Your task to perform on an android device: Open Chrome and go to settings Image 0: 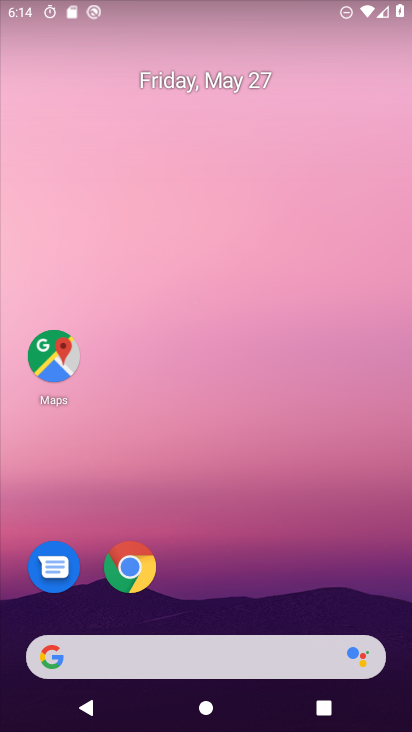
Step 0: click (132, 565)
Your task to perform on an android device: Open Chrome and go to settings Image 1: 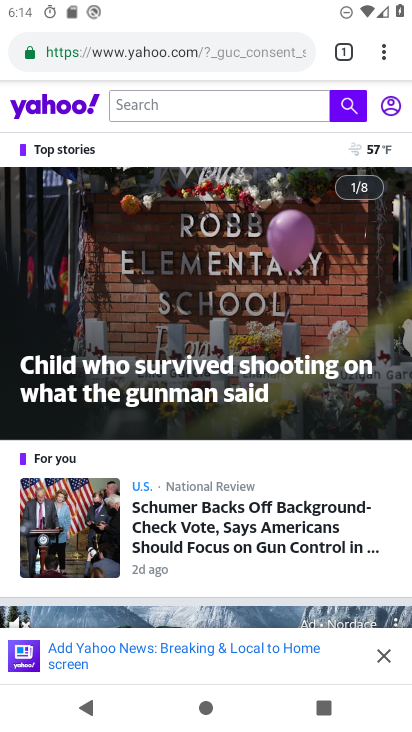
Step 1: click (380, 56)
Your task to perform on an android device: Open Chrome and go to settings Image 2: 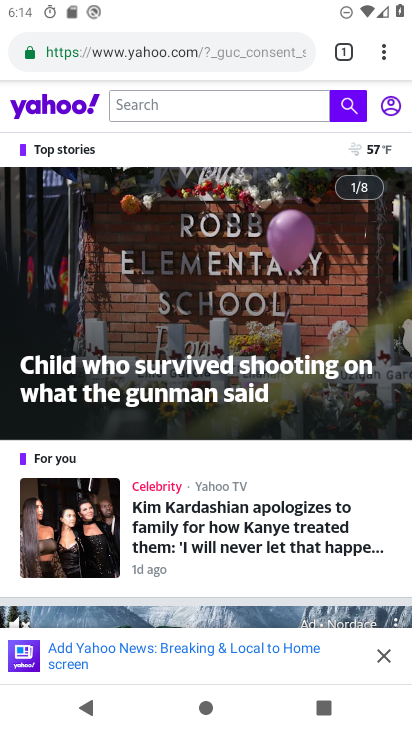
Step 2: click (385, 50)
Your task to perform on an android device: Open Chrome and go to settings Image 3: 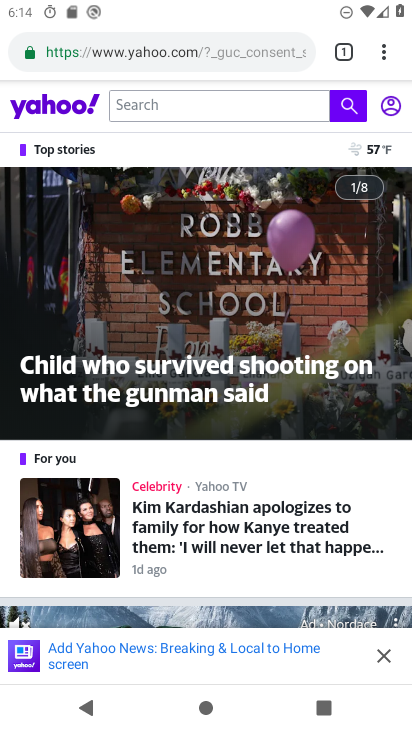
Step 3: click (380, 52)
Your task to perform on an android device: Open Chrome and go to settings Image 4: 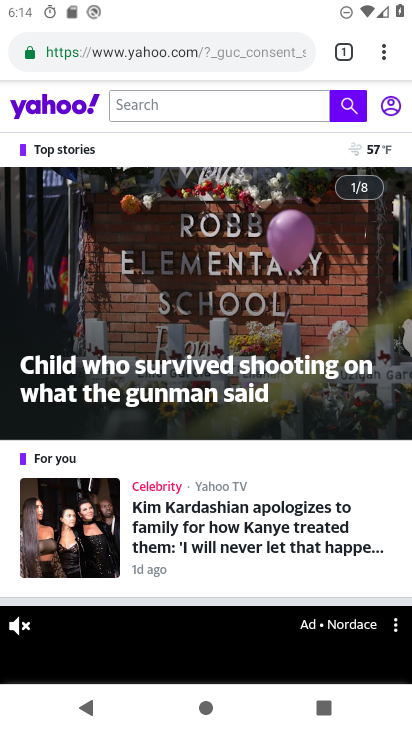
Step 4: click (384, 53)
Your task to perform on an android device: Open Chrome and go to settings Image 5: 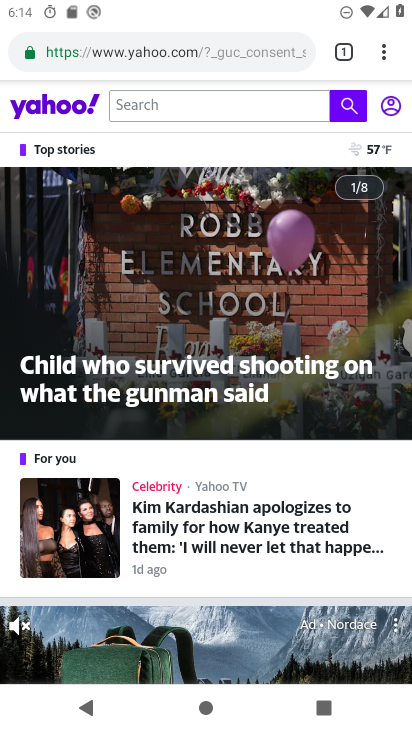
Step 5: click (388, 55)
Your task to perform on an android device: Open Chrome and go to settings Image 6: 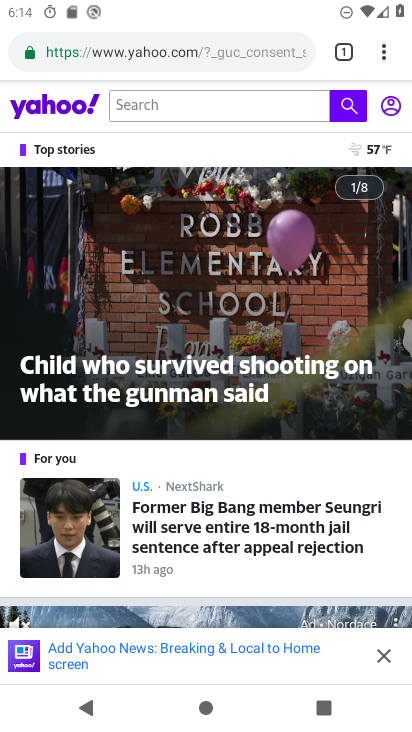
Step 6: click (381, 54)
Your task to perform on an android device: Open Chrome and go to settings Image 7: 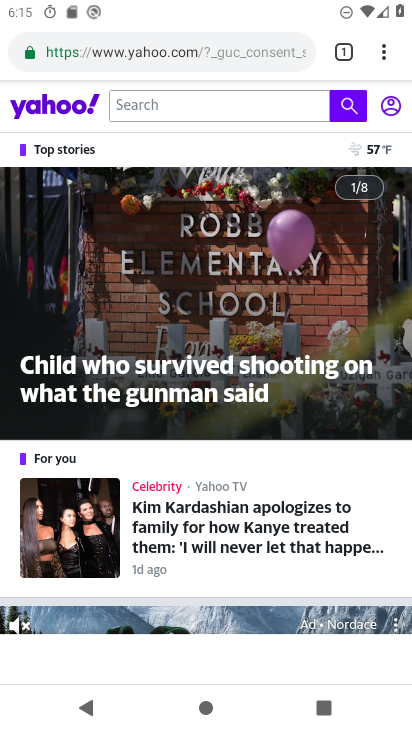
Step 7: click (383, 55)
Your task to perform on an android device: Open Chrome and go to settings Image 8: 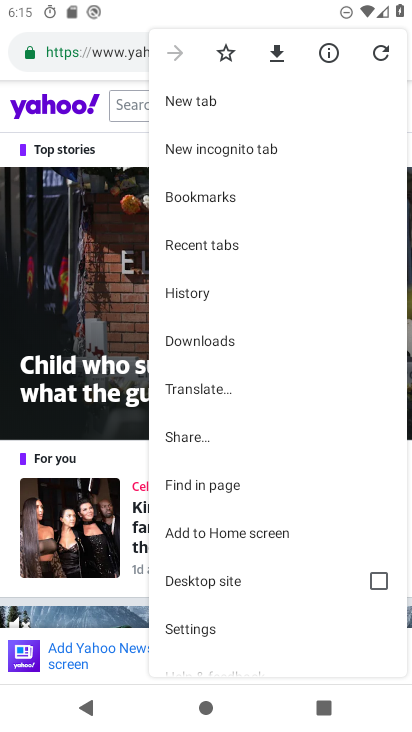
Step 8: click (210, 630)
Your task to perform on an android device: Open Chrome and go to settings Image 9: 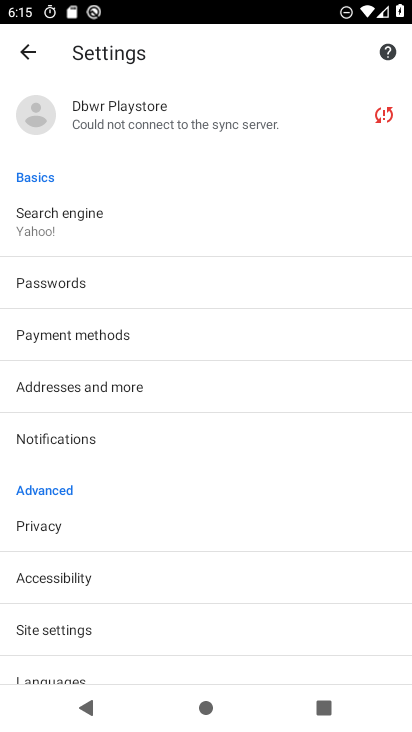
Step 9: task complete